Your task to perform on an android device: Go to accessibility settings Image 0: 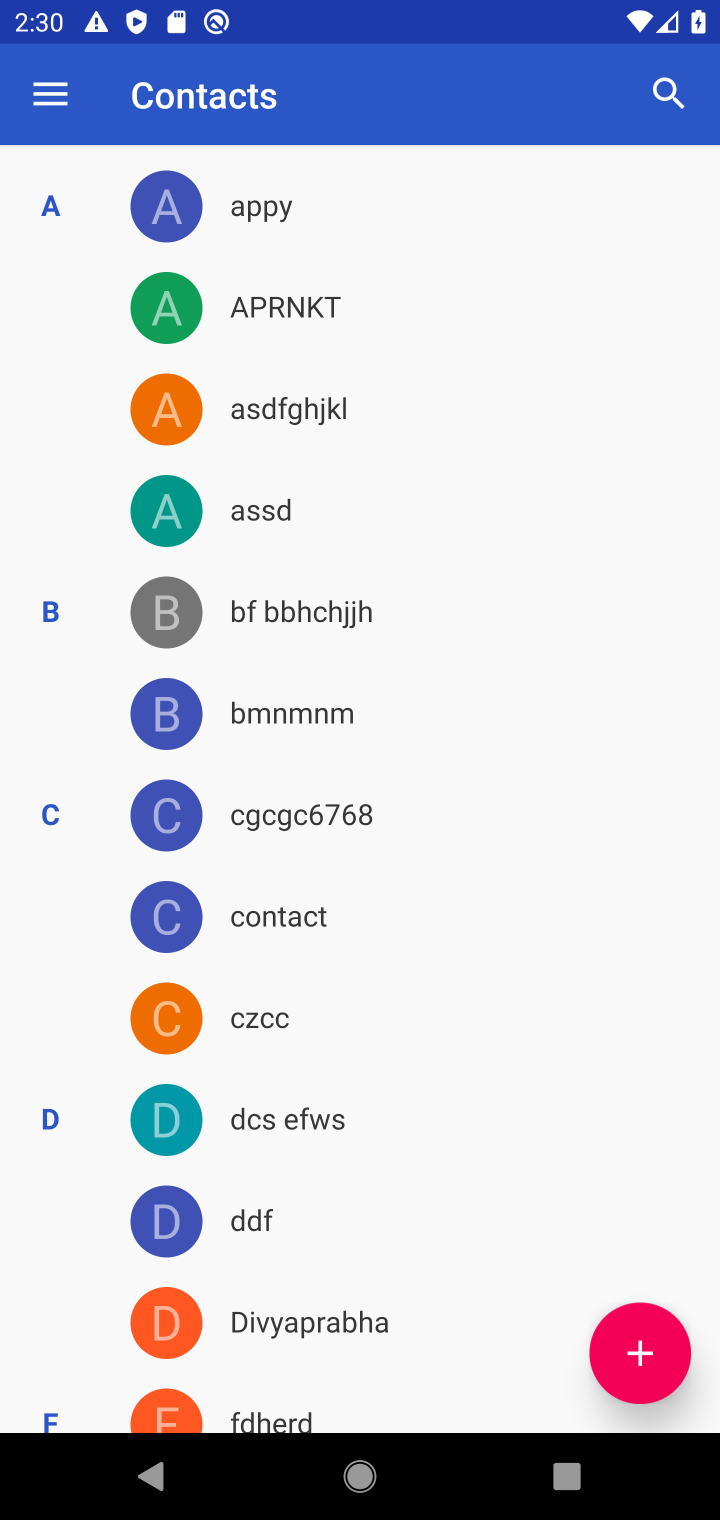
Step 0: press home button
Your task to perform on an android device: Go to accessibility settings Image 1: 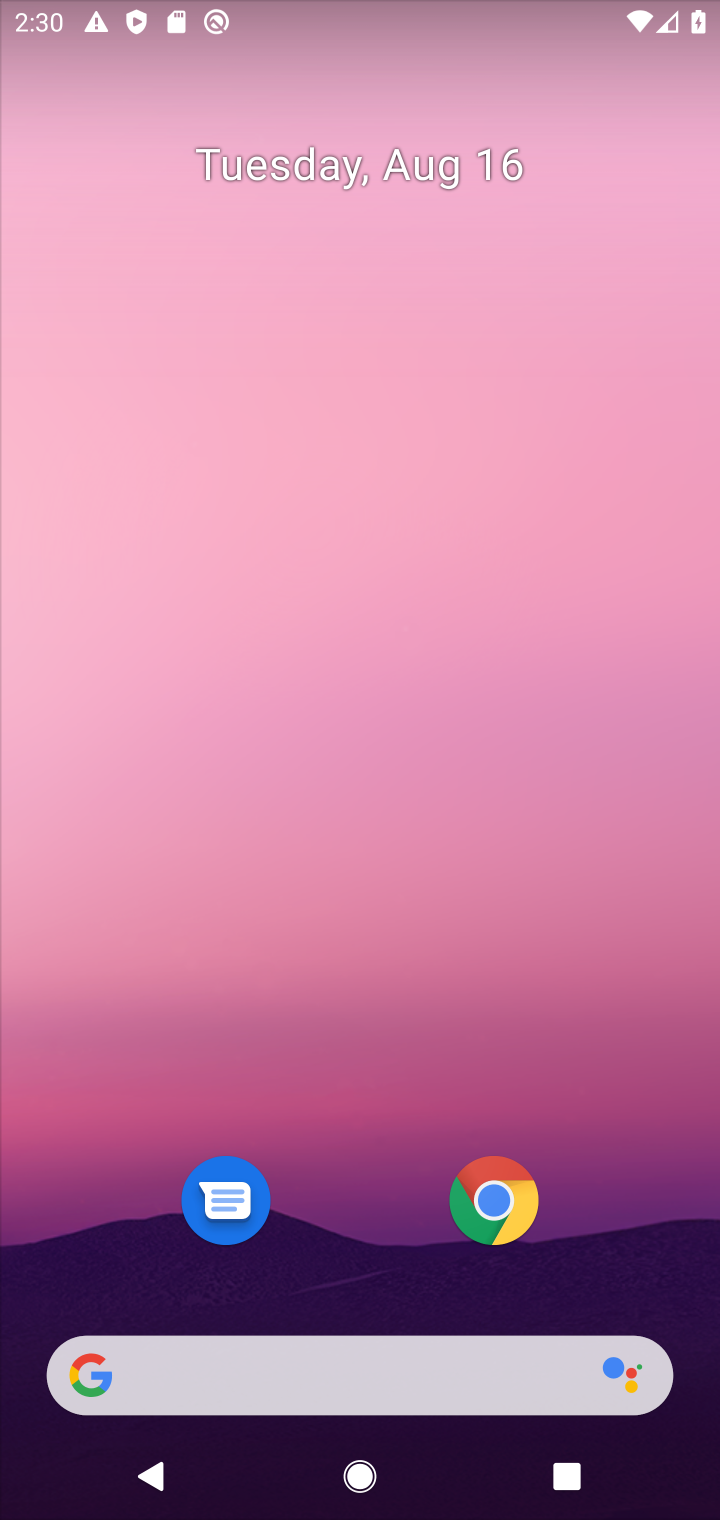
Step 1: drag from (92, 1484) to (358, 414)
Your task to perform on an android device: Go to accessibility settings Image 2: 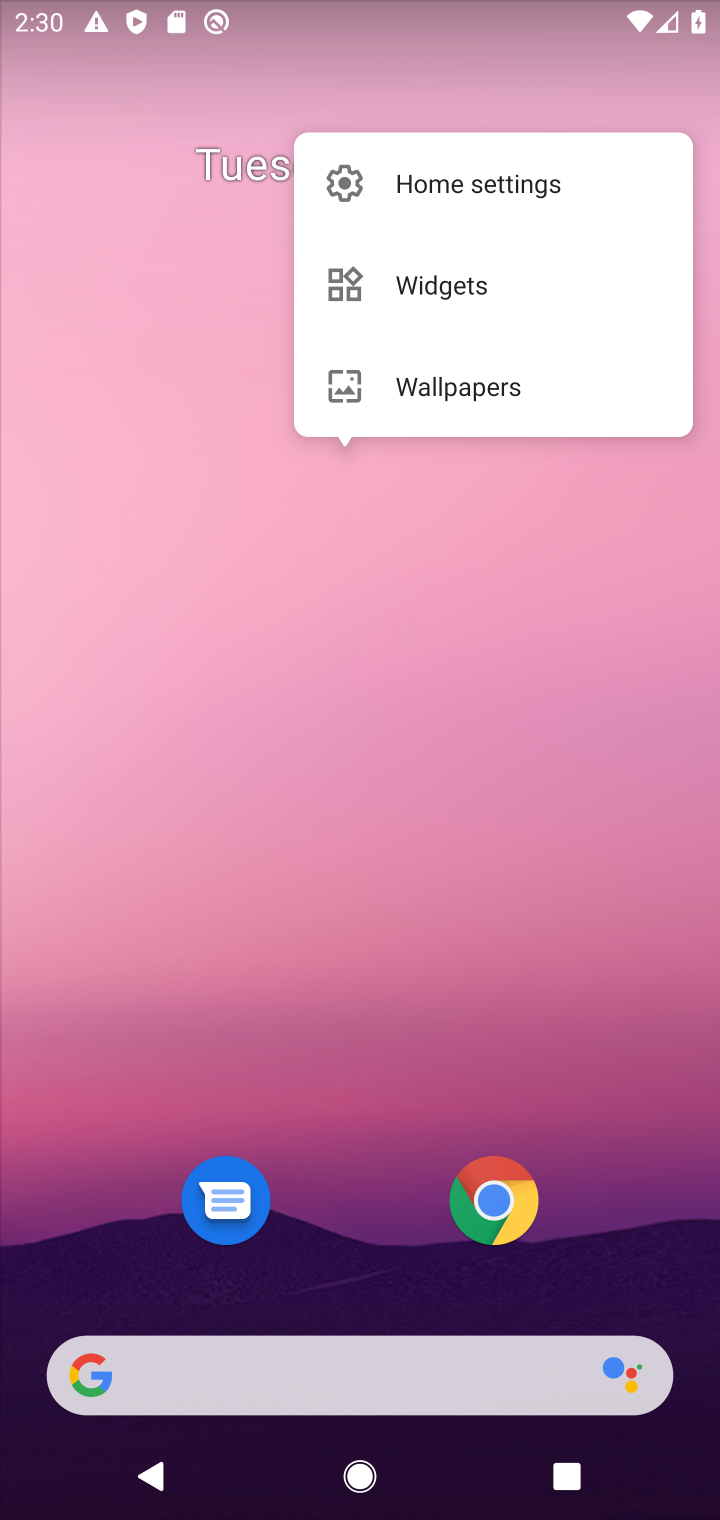
Step 2: click (235, 417)
Your task to perform on an android device: Go to accessibility settings Image 3: 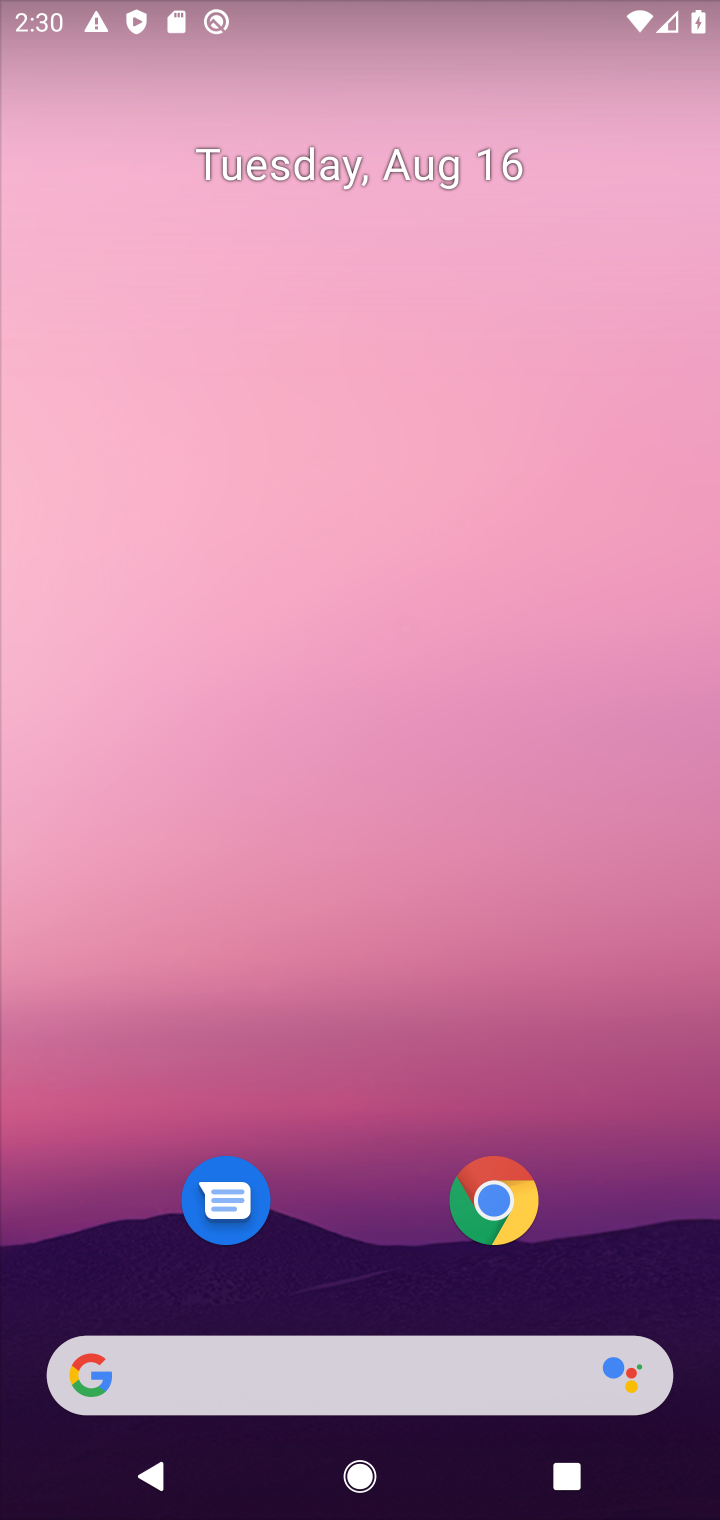
Step 3: task complete